Your task to perform on an android device: open the mobile data screen to see how much data has been used Image 0: 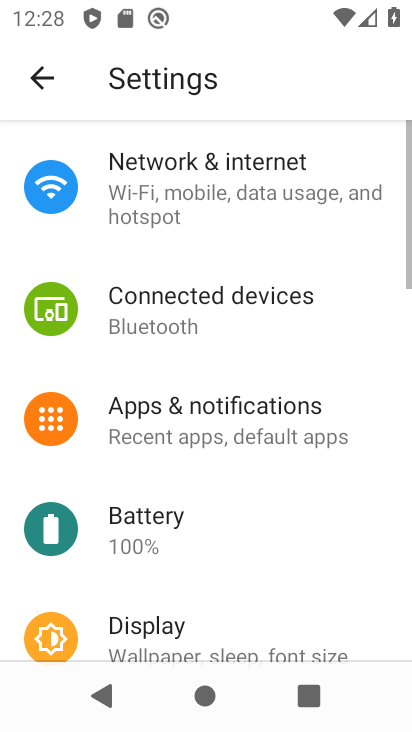
Step 0: press home button
Your task to perform on an android device: open the mobile data screen to see how much data has been used Image 1: 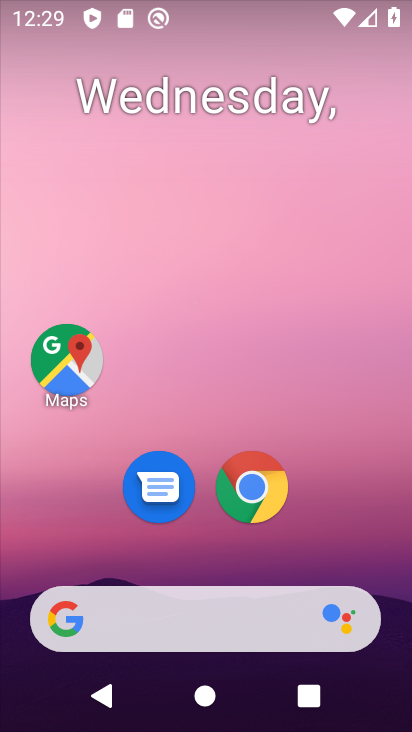
Step 1: drag from (234, 547) to (301, 15)
Your task to perform on an android device: open the mobile data screen to see how much data has been used Image 2: 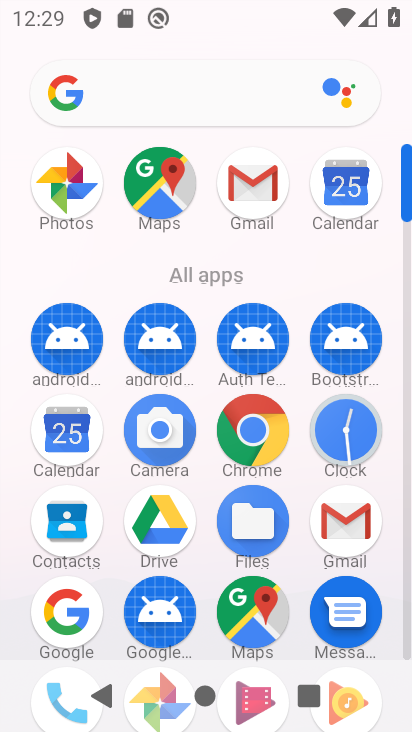
Step 2: drag from (299, 638) to (303, 190)
Your task to perform on an android device: open the mobile data screen to see how much data has been used Image 3: 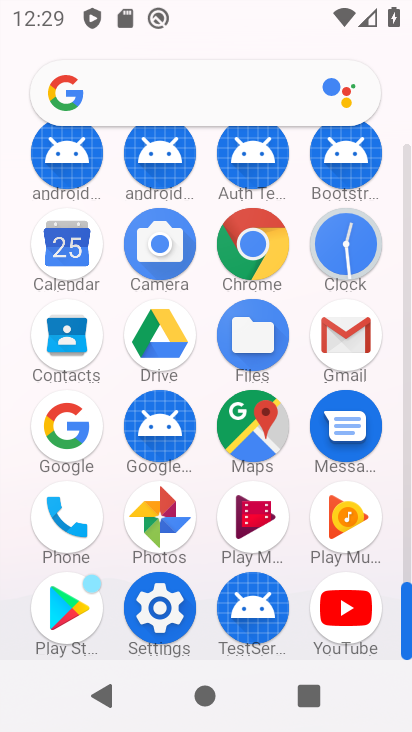
Step 3: click (157, 611)
Your task to perform on an android device: open the mobile data screen to see how much data has been used Image 4: 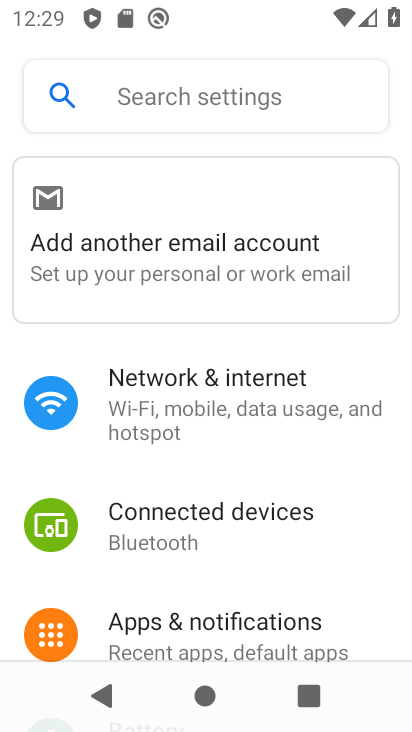
Step 4: drag from (167, 614) to (216, 196)
Your task to perform on an android device: open the mobile data screen to see how much data has been used Image 5: 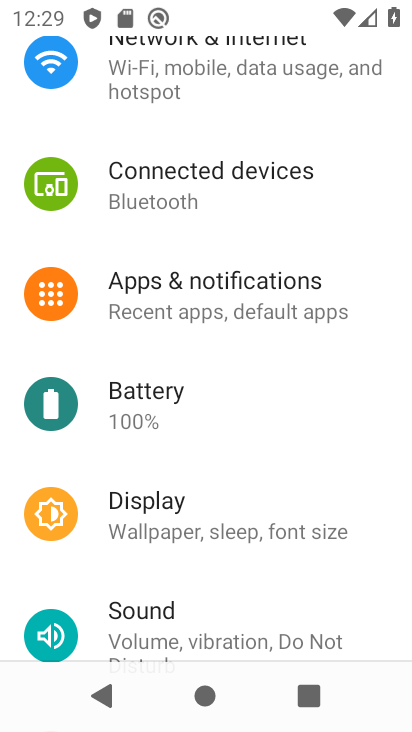
Step 5: click (157, 73)
Your task to perform on an android device: open the mobile data screen to see how much data has been used Image 6: 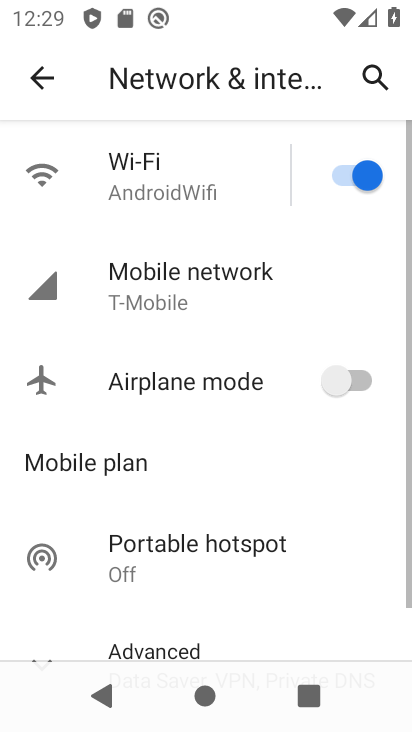
Step 6: click (195, 288)
Your task to perform on an android device: open the mobile data screen to see how much data has been used Image 7: 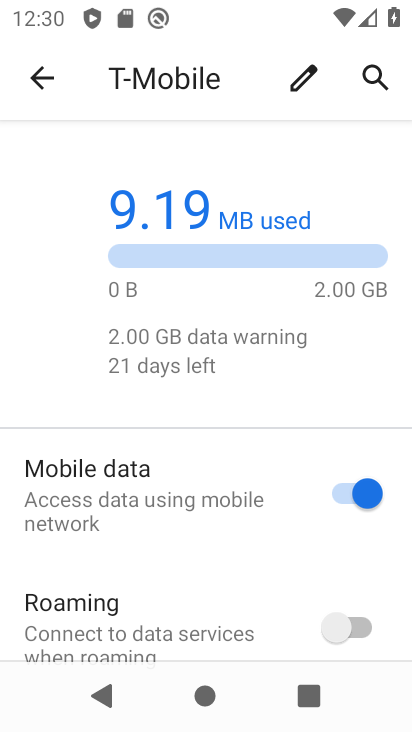
Step 7: task complete